Your task to perform on an android device: Open Chrome and go to settings Image 0: 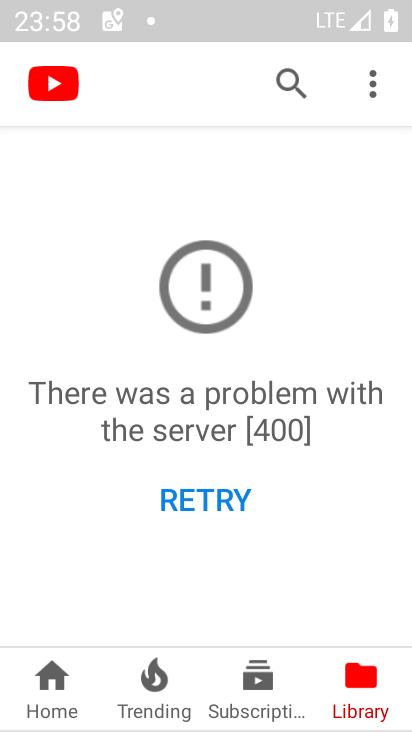
Step 0: press back button
Your task to perform on an android device: Open Chrome and go to settings Image 1: 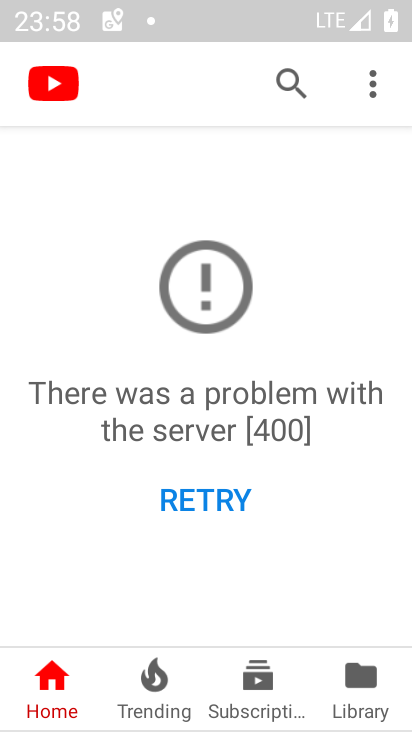
Step 1: press back button
Your task to perform on an android device: Open Chrome and go to settings Image 2: 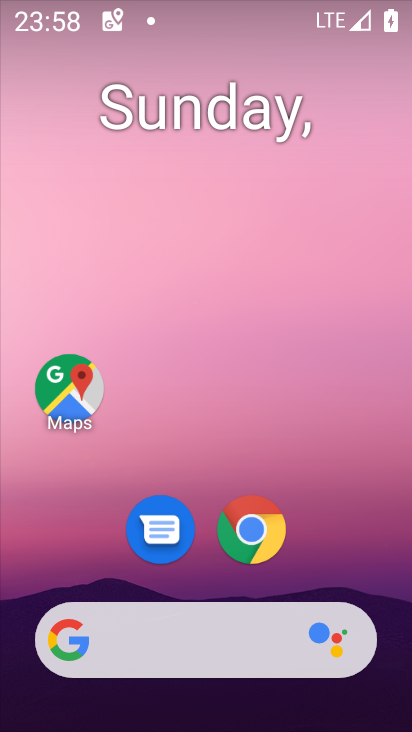
Step 2: click (253, 527)
Your task to perform on an android device: Open Chrome and go to settings Image 3: 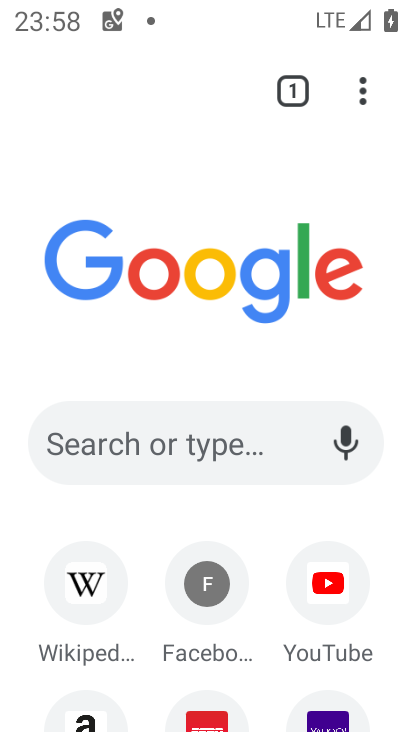
Step 3: click (364, 94)
Your task to perform on an android device: Open Chrome and go to settings Image 4: 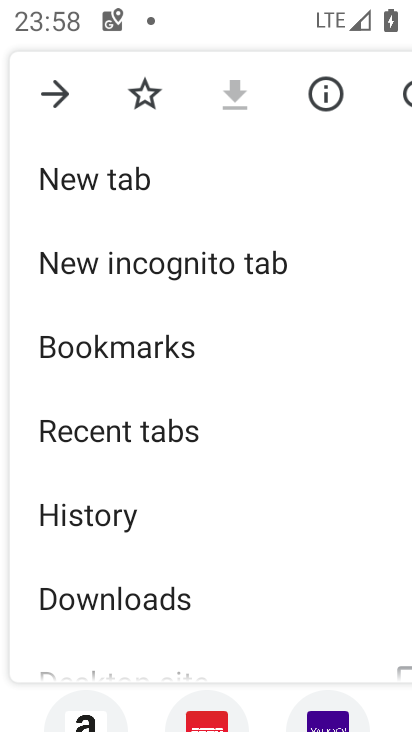
Step 4: drag from (188, 478) to (266, 374)
Your task to perform on an android device: Open Chrome and go to settings Image 5: 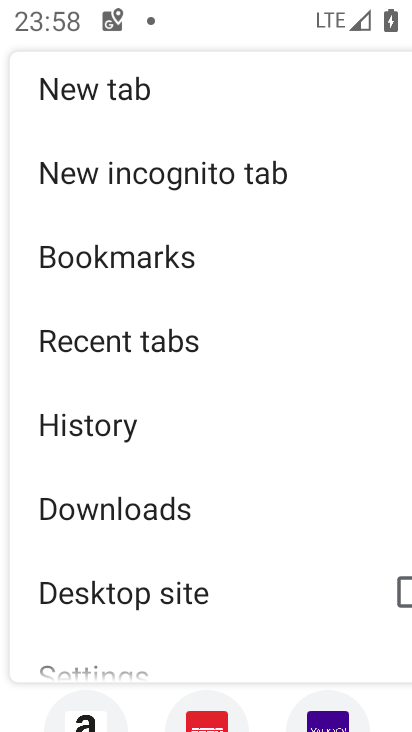
Step 5: drag from (175, 570) to (263, 450)
Your task to perform on an android device: Open Chrome and go to settings Image 6: 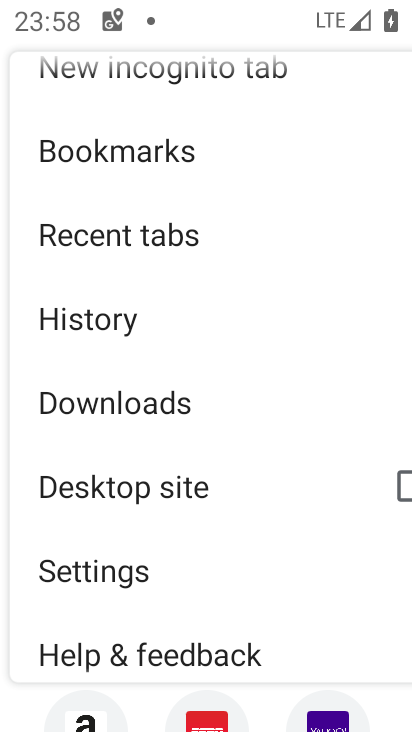
Step 6: drag from (176, 555) to (231, 445)
Your task to perform on an android device: Open Chrome and go to settings Image 7: 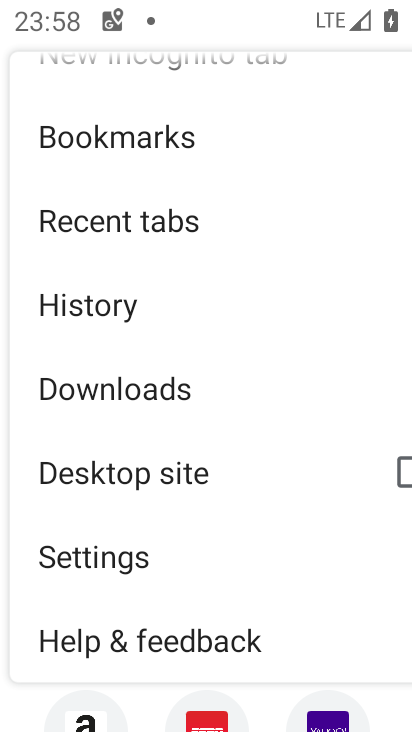
Step 7: click (121, 556)
Your task to perform on an android device: Open Chrome and go to settings Image 8: 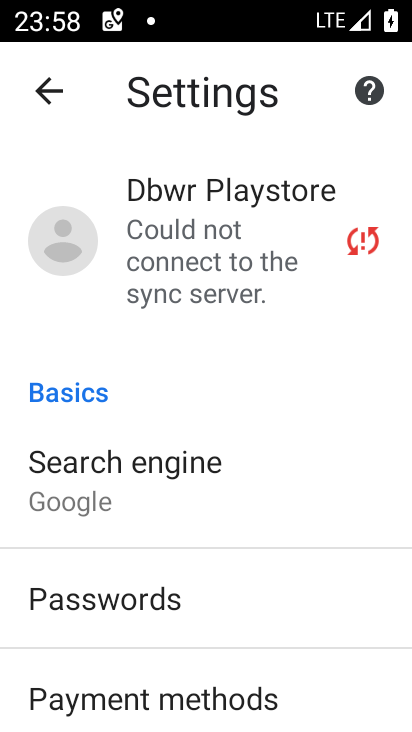
Step 8: task complete